Your task to perform on an android device: Open my contact list Image 0: 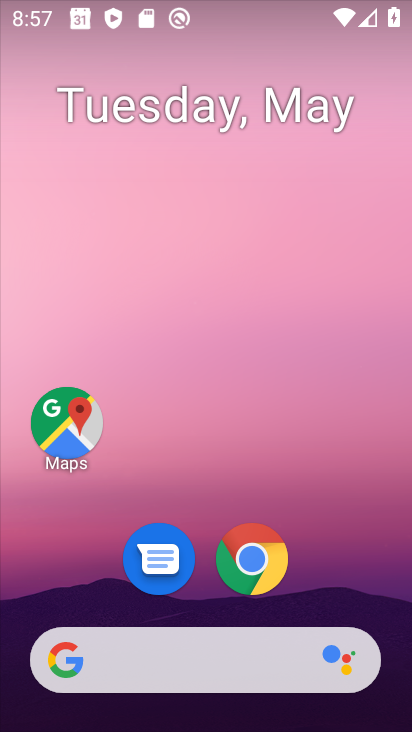
Step 0: drag from (340, 621) to (185, 117)
Your task to perform on an android device: Open my contact list Image 1: 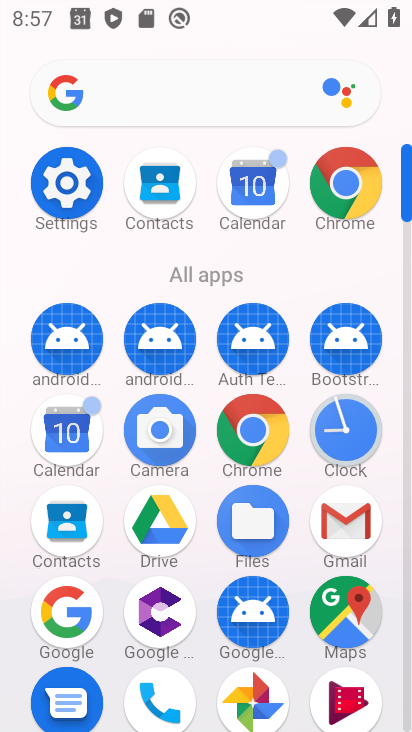
Step 1: click (73, 514)
Your task to perform on an android device: Open my contact list Image 2: 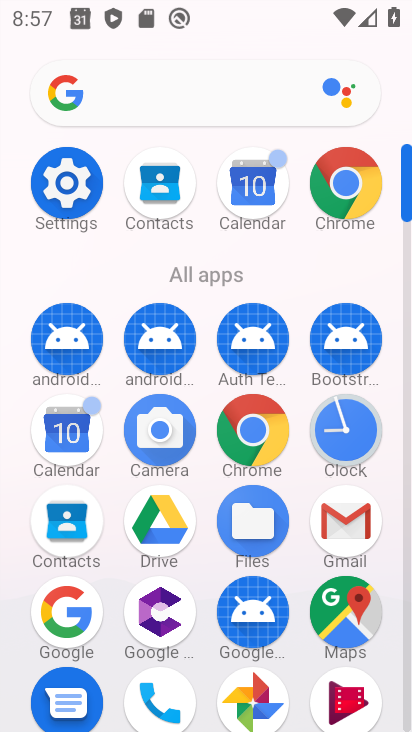
Step 2: click (73, 515)
Your task to perform on an android device: Open my contact list Image 3: 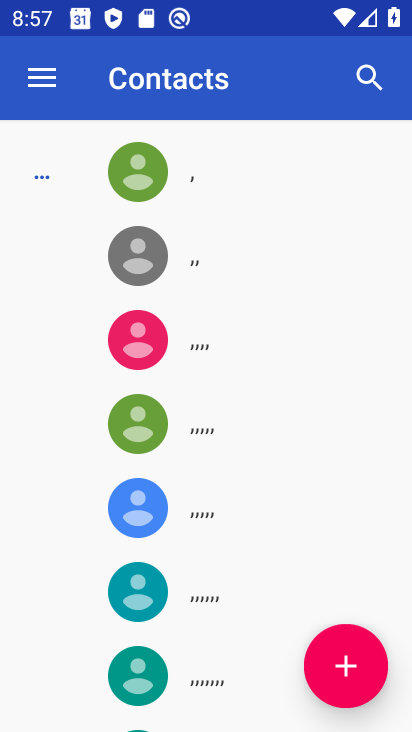
Step 3: click (348, 665)
Your task to perform on an android device: Open my contact list Image 4: 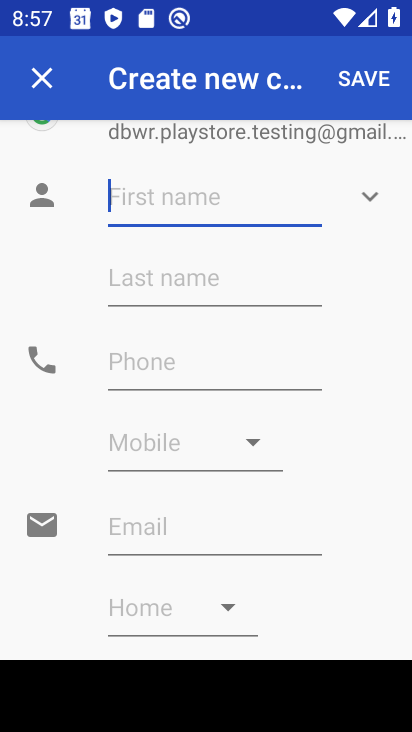
Step 4: click (38, 78)
Your task to perform on an android device: Open my contact list Image 5: 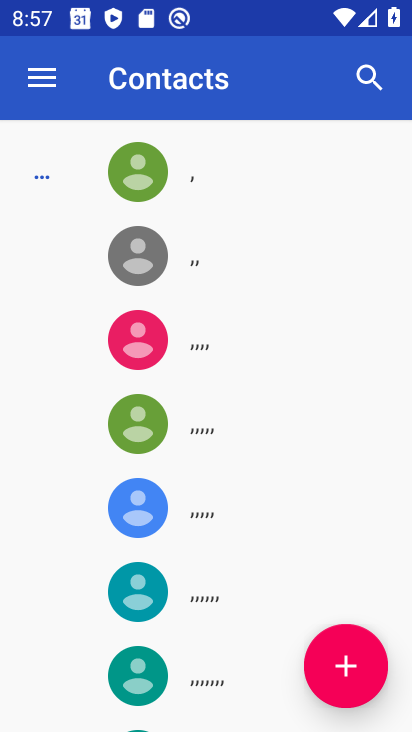
Step 5: task complete